Your task to perform on an android device: turn on bluetooth scan Image 0: 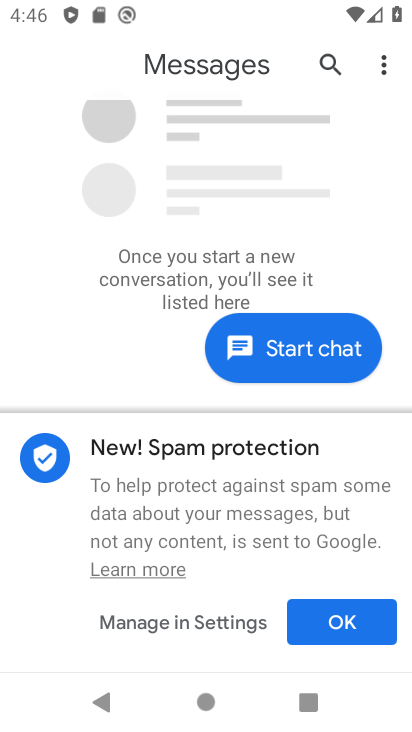
Step 0: press home button
Your task to perform on an android device: turn on bluetooth scan Image 1: 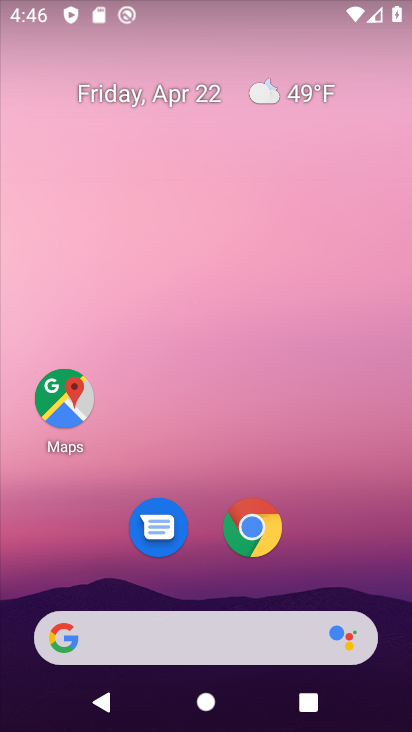
Step 1: drag from (290, 554) to (152, 80)
Your task to perform on an android device: turn on bluetooth scan Image 2: 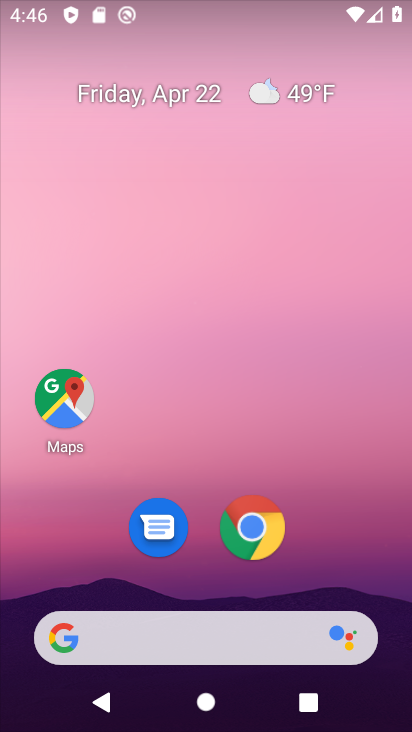
Step 2: drag from (258, 496) to (136, 0)
Your task to perform on an android device: turn on bluetooth scan Image 3: 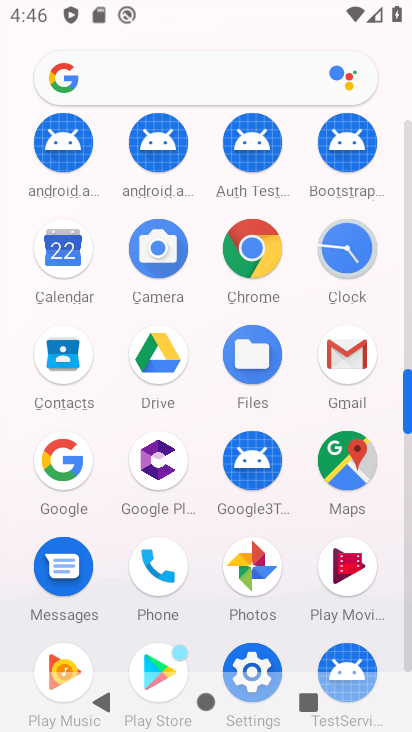
Step 3: click (251, 671)
Your task to perform on an android device: turn on bluetooth scan Image 4: 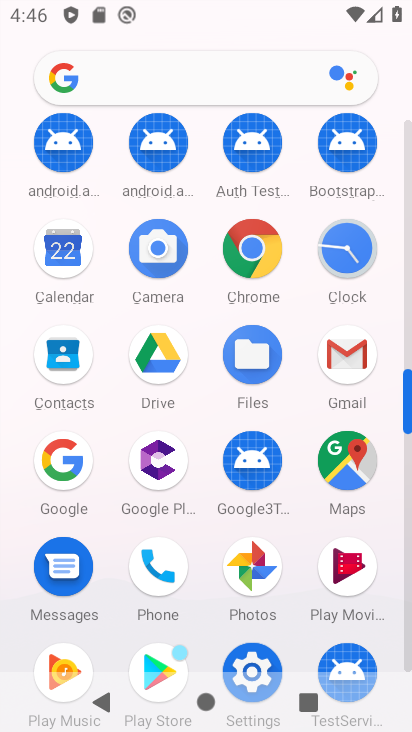
Step 4: click (251, 666)
Your task to perform on an android device: turn on bluetooth scan Image 5: 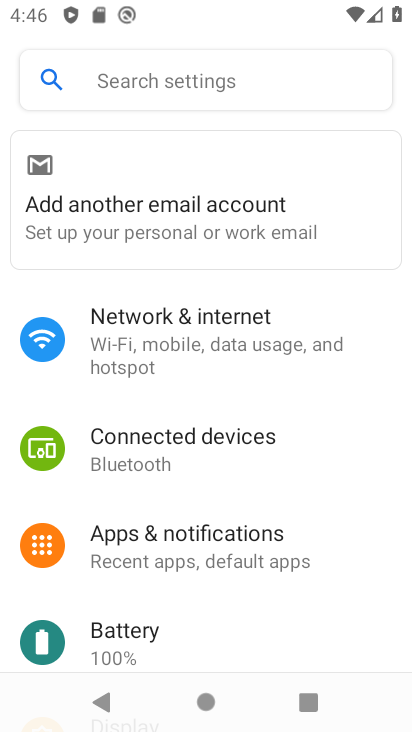
Step 5: drag from (202, 585) to (136, 120)
Your task to perform on an android device: turn on bluetooth scan Image 6: 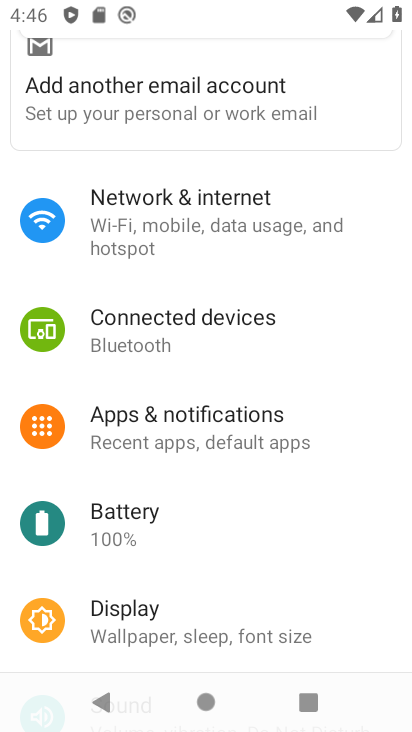
Step 6: drag from (113, 438) to (99, 87)
Your task to perform on an android device: turn on bluetooth scan Image 7: 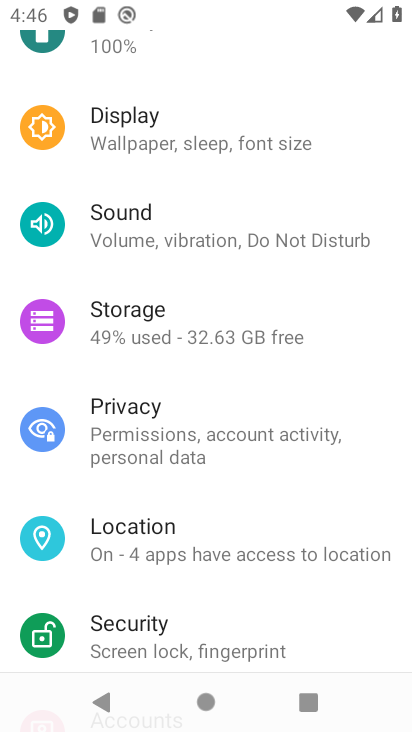
Step 7: drag from (171, 598) to (193, 58)
Your task to perform on an android device: turn on bluetooth scan Image 8: 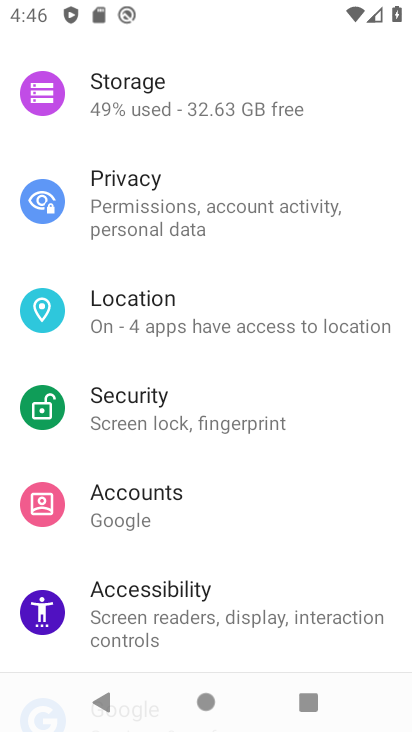
Step 8: drag from (213, 508) to (149, 43)
Your task to perform on an android device: turn on bluetooth scan Image 9: 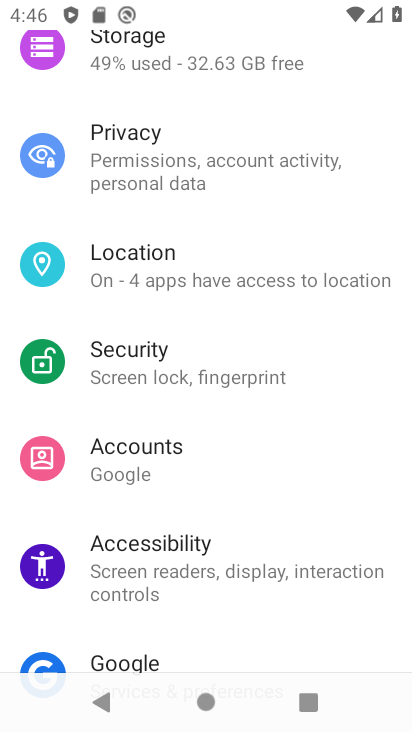
Step 9: drag from (121, 301) to (114, 31)
Your task to perform on an android device: turn on bluetooth scan Image 10: 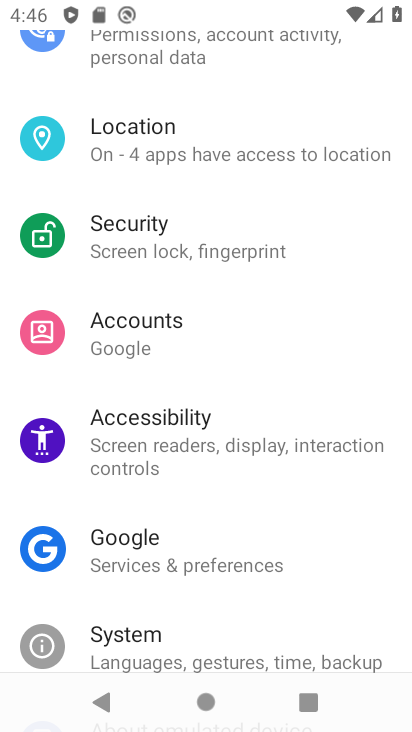
Step 10: drag from (194, 418) to (180, 509)
Your task to perform on an android device: turn on bluetooth scan Image 11: 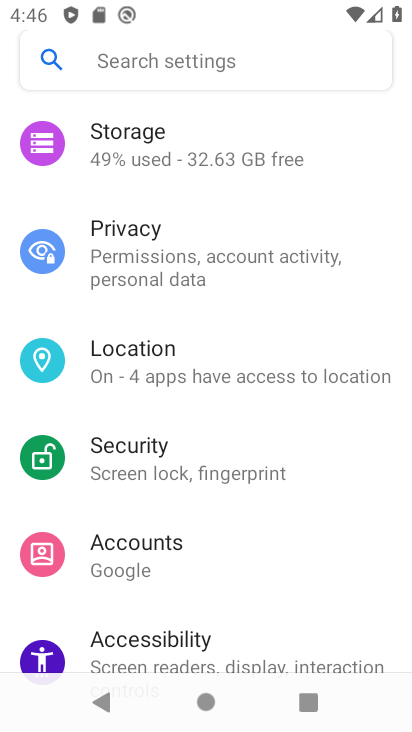
Step 11: click (160, 374)
Your task to perform on an android device: turn on bluetooth scan Image 12: 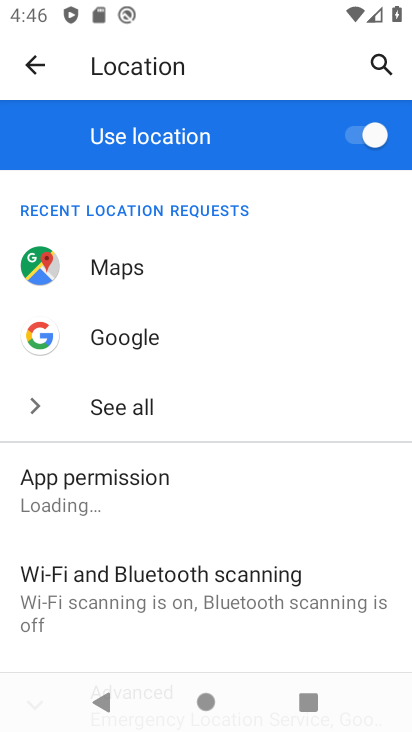
Step 12: click (157, 588)
Your task to perform on an android device: turn on bluetooth scan Image 13: 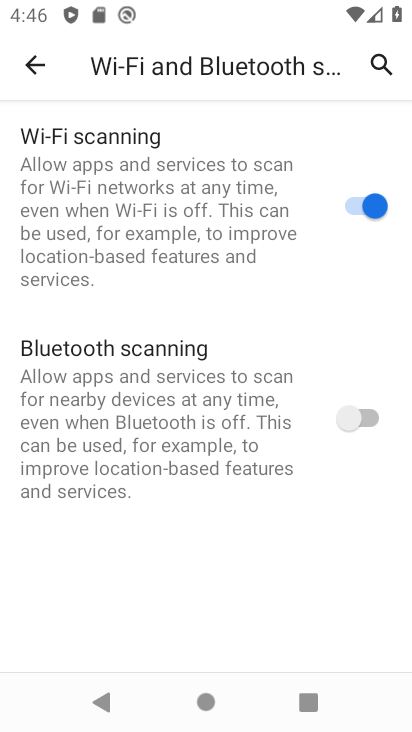
Step 13: click (354, 409)
Your task to perform on an android device: turn on bluetooth scan Image 14: 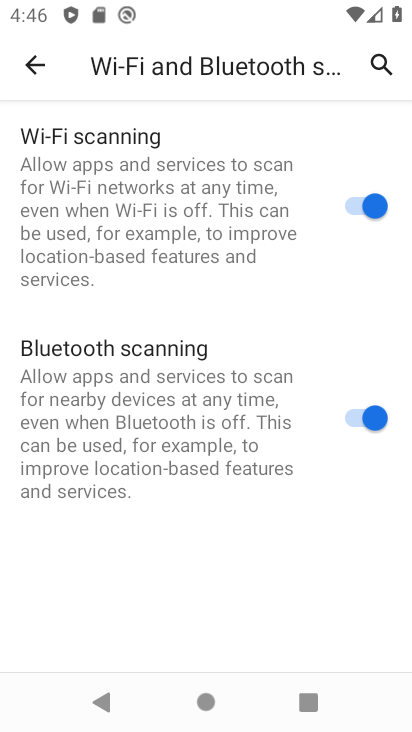
Step 14: task complete